Your task to perform on an android device: Open network settings Image 0: 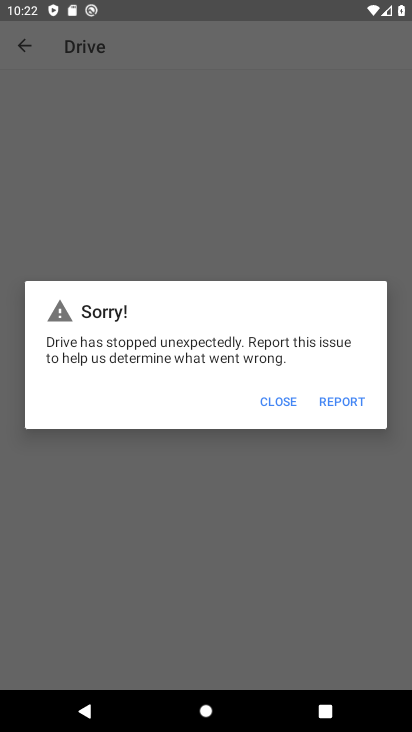
Step 0: press home button
Your task to perform on an android device: Open network settings Image 1: 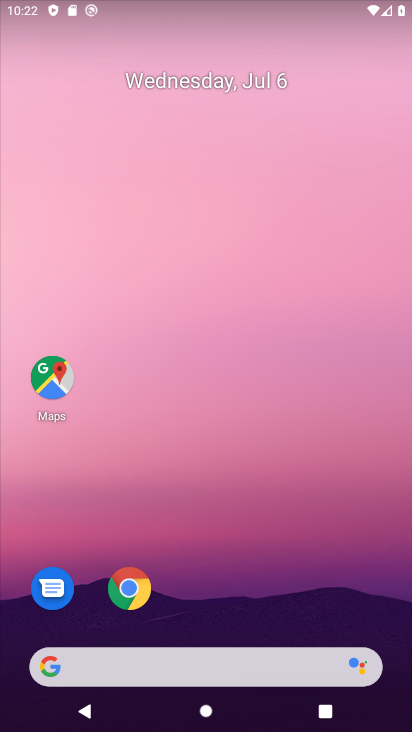
Step 1: drag from (148, 670) to (301, 87)
Your task to perform on an android device: Open network settings Image 2: 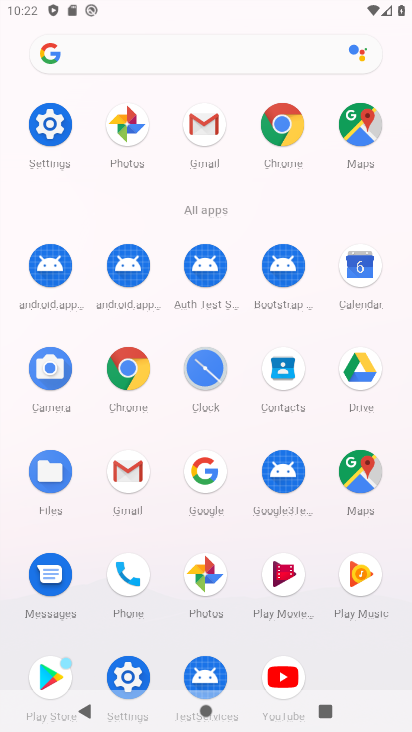
Step 2: click (61, 124)
Your task to perform on an android device: Open network settings Image 3: 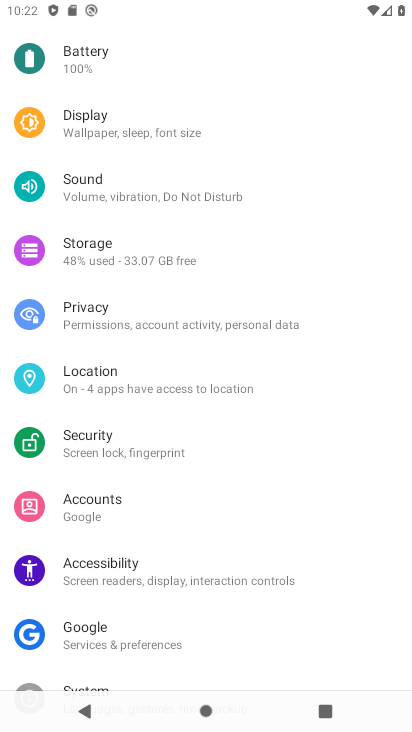
Step 3: drag from (224, 77) to (181, 355)
Your task to perform on an android device: Open network settings Image 4: 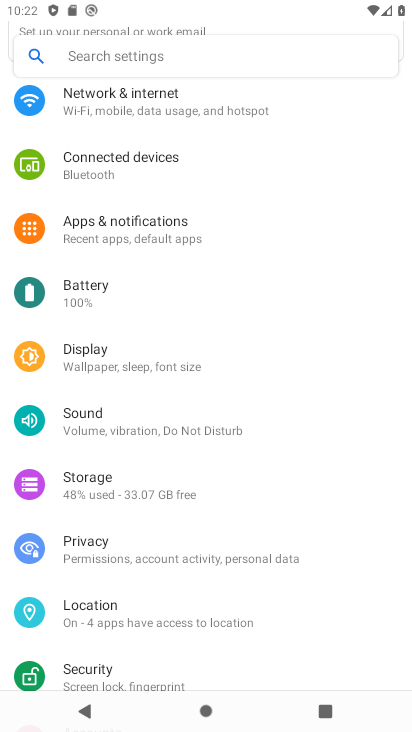
Step 4: drag from (252, 204) to (184, 664)
Your task to perform on an android device: Open network settings Image 5: 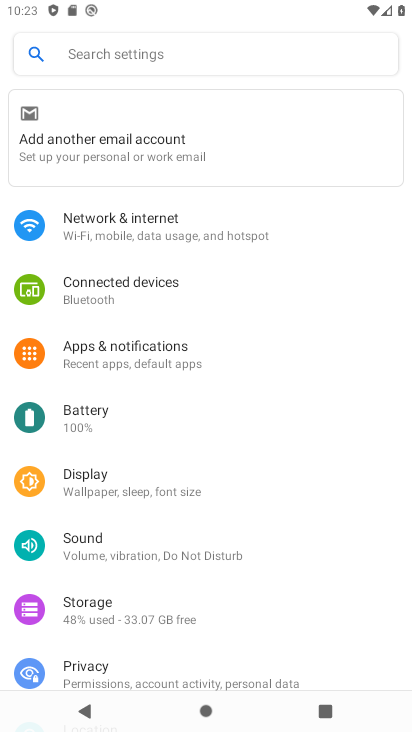
Step 5: click (166, 231)
Your task to perform on an android device: Open network settings Image 6: 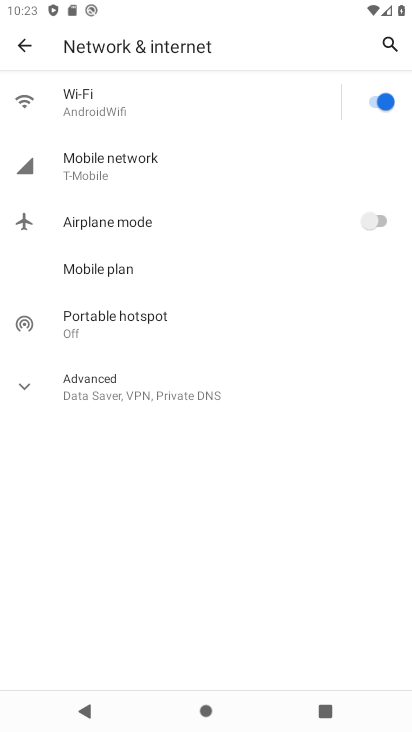
Step 6: click (183, 159)
Your task to perform on an android device: Open network settings Image 7: 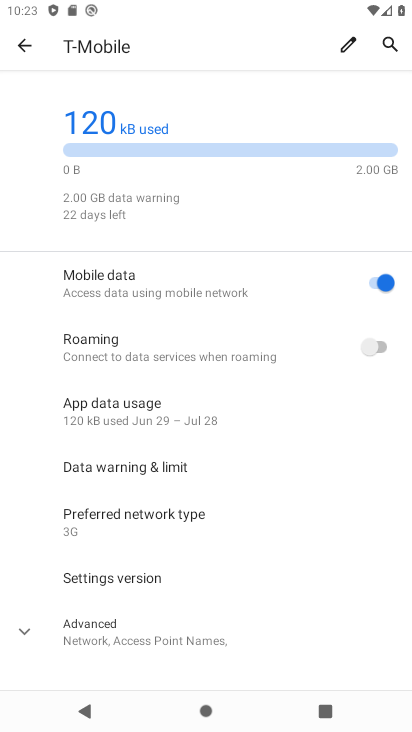
Step 7: task complete